Your task to perform on an android device: Open eBay Image 0: 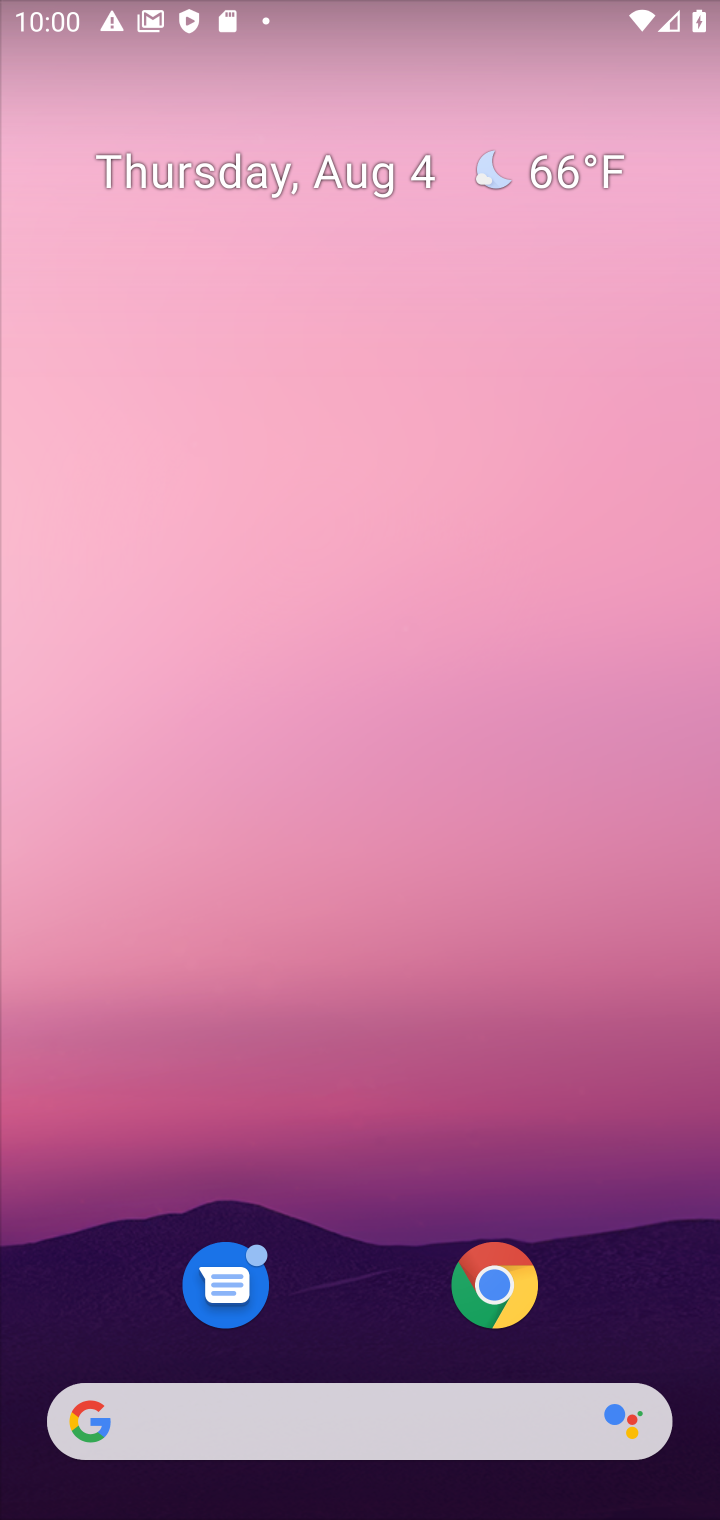
Step 0: press home button
Your task to perform on an android device: Open eBay Image 1: 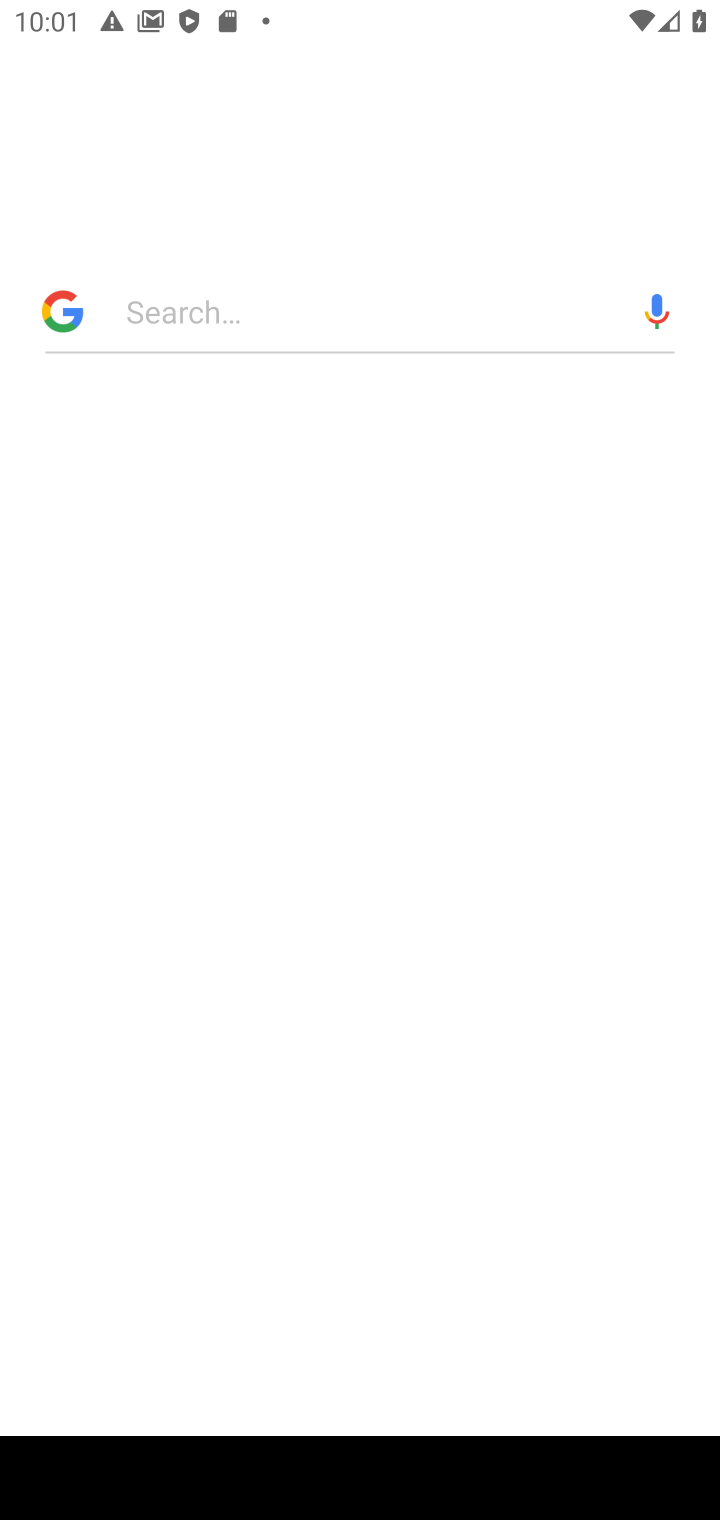
Step 1: click (467, 64)
Your task to perform on an android device: Open eBay Image 2: 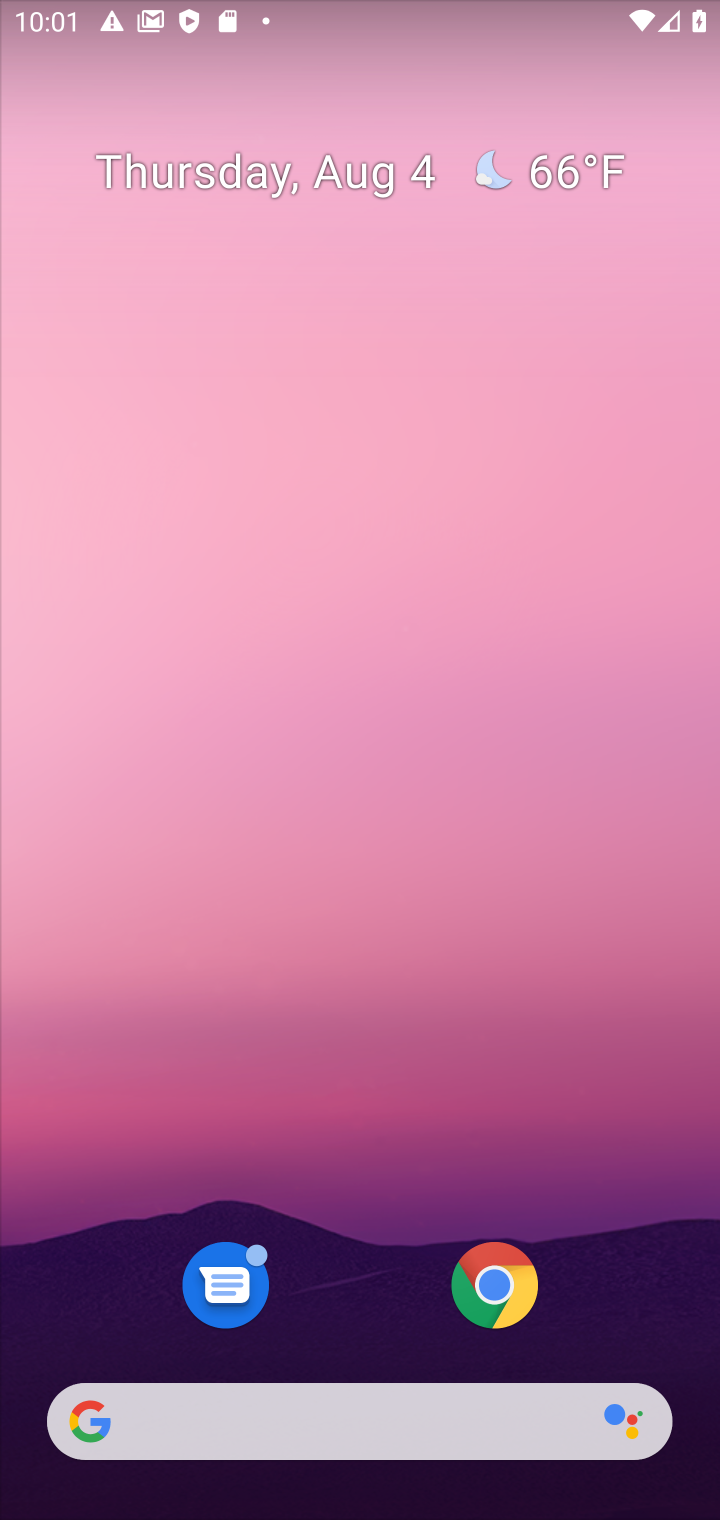
Step 2: drag from (382, 1295) to (454, 198)
Your task to perform on an android device: Open eBay Image 3: 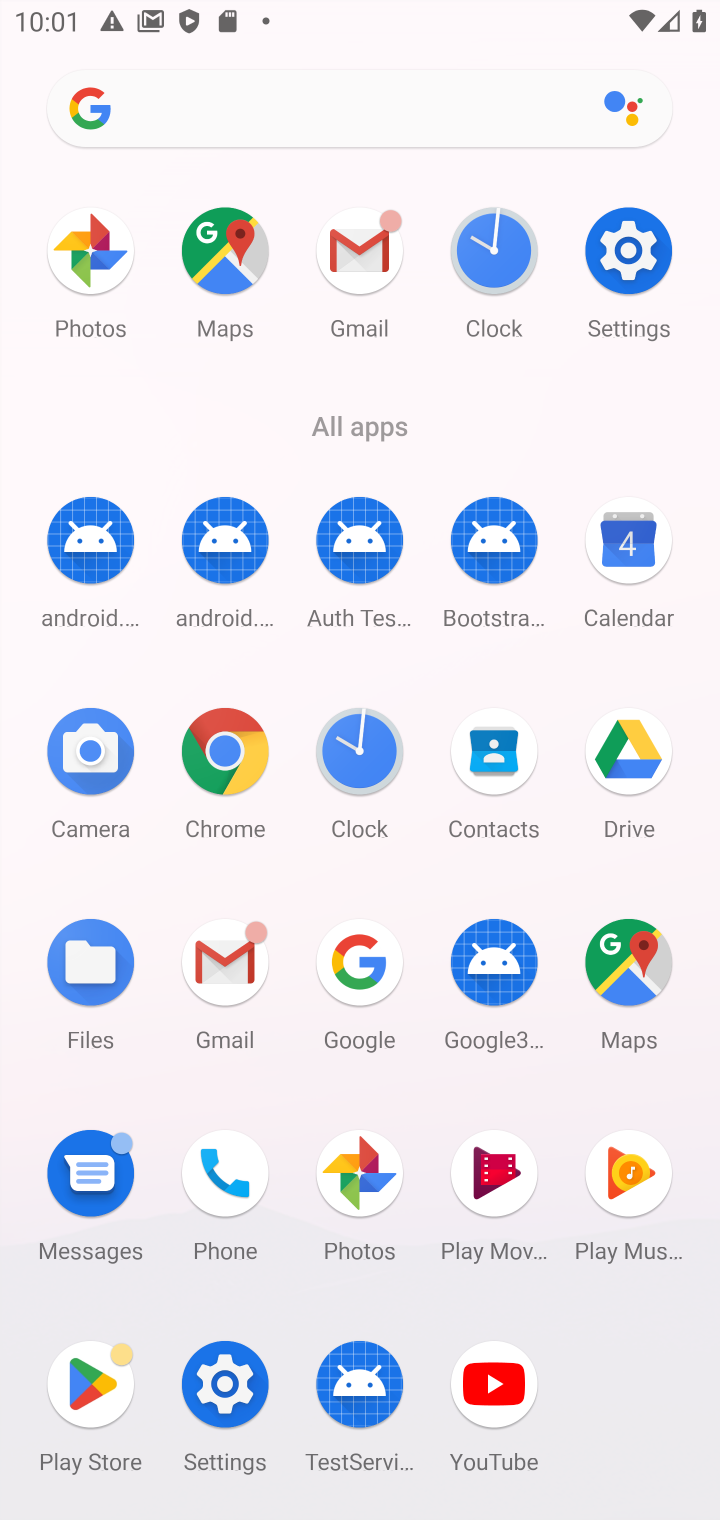
Step 3: click (223, 758)
Your task to perform on an android device: Open eBay Image 4: 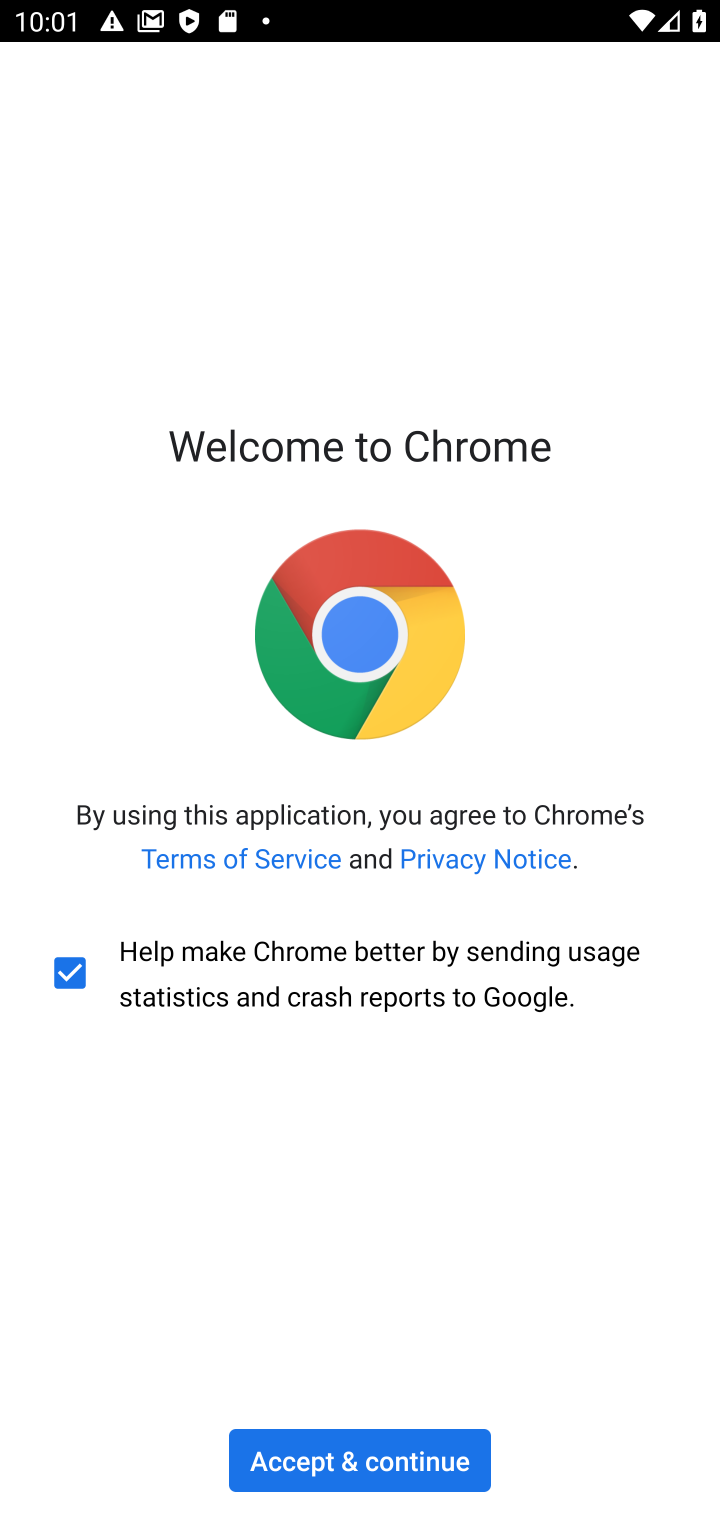
Step 4: click (408, 1448)
Your task to perform on an android device: Open eBay Image 5: 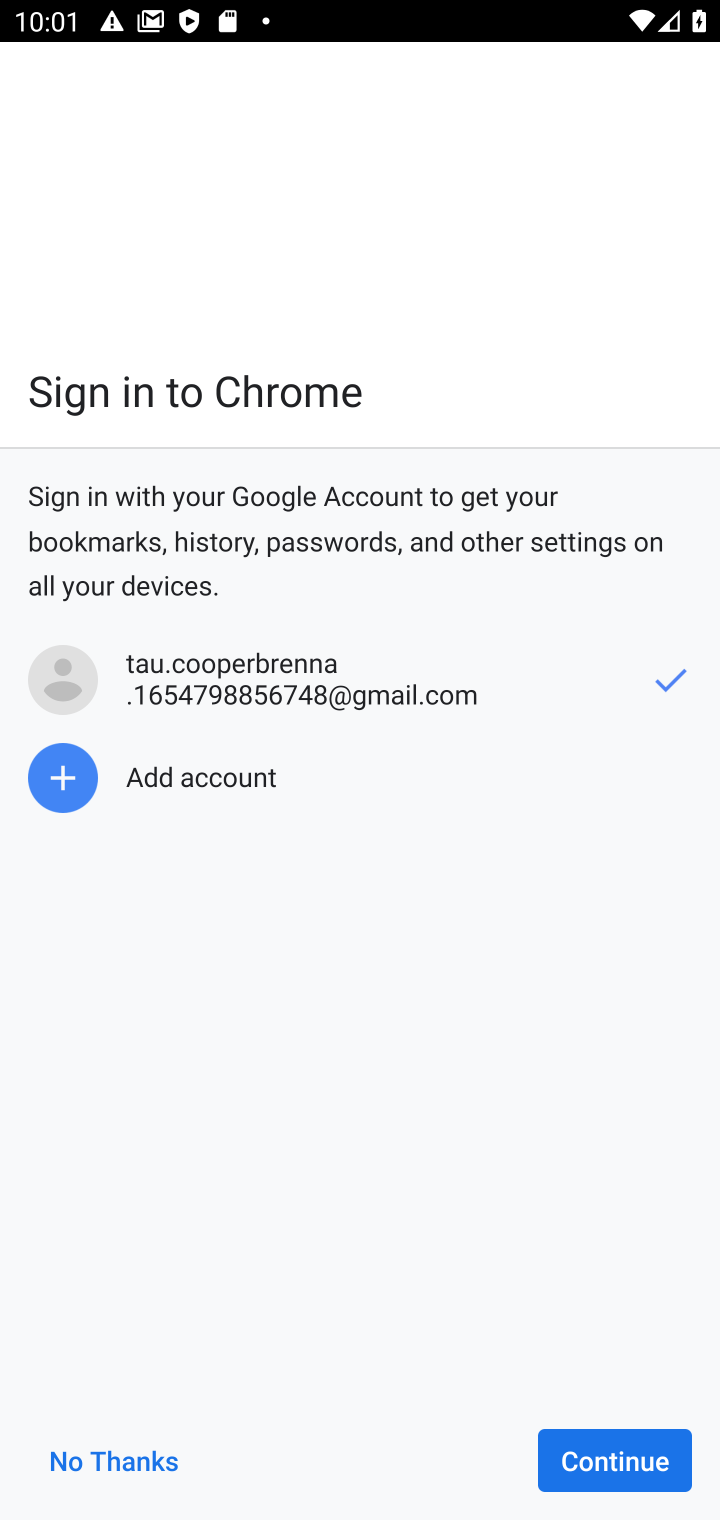
Step 5: click (626, 1449)
Your task to perform on an android device: Open eBay Image 6: 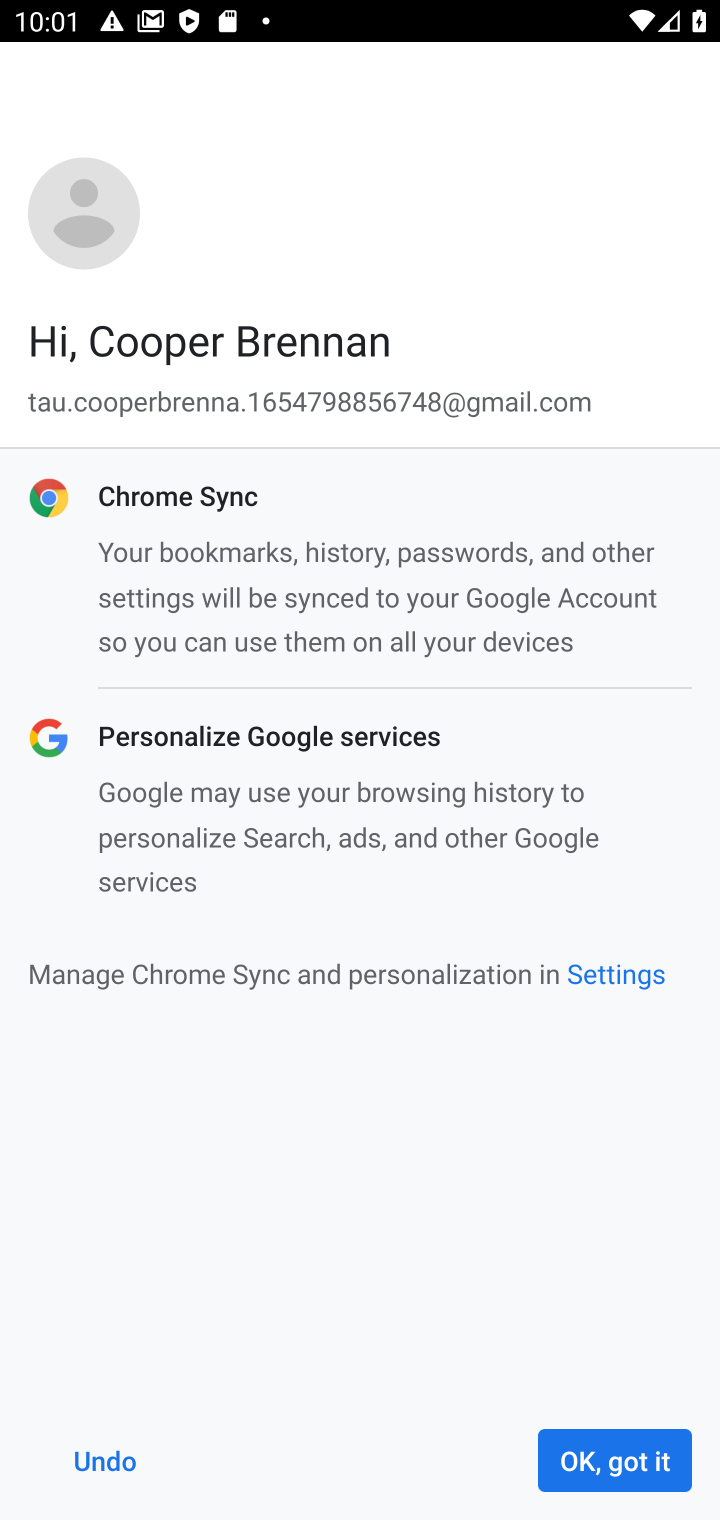
Step 6: click (626, 1449)
Your task to perform on an android device: Open eBay Image 7: 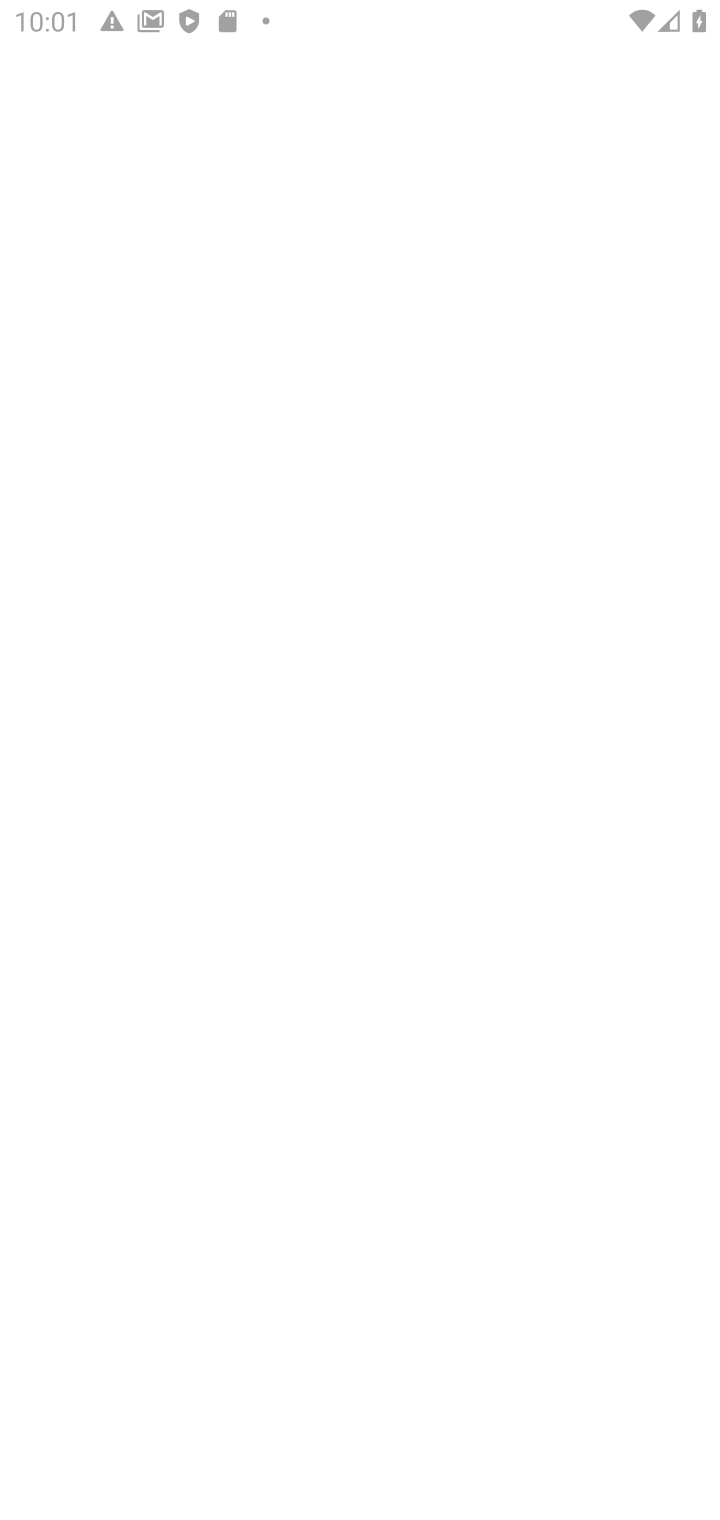
Step 7: click (626, 1449)
Your task to perform on an android device: Open eBay Image 8: 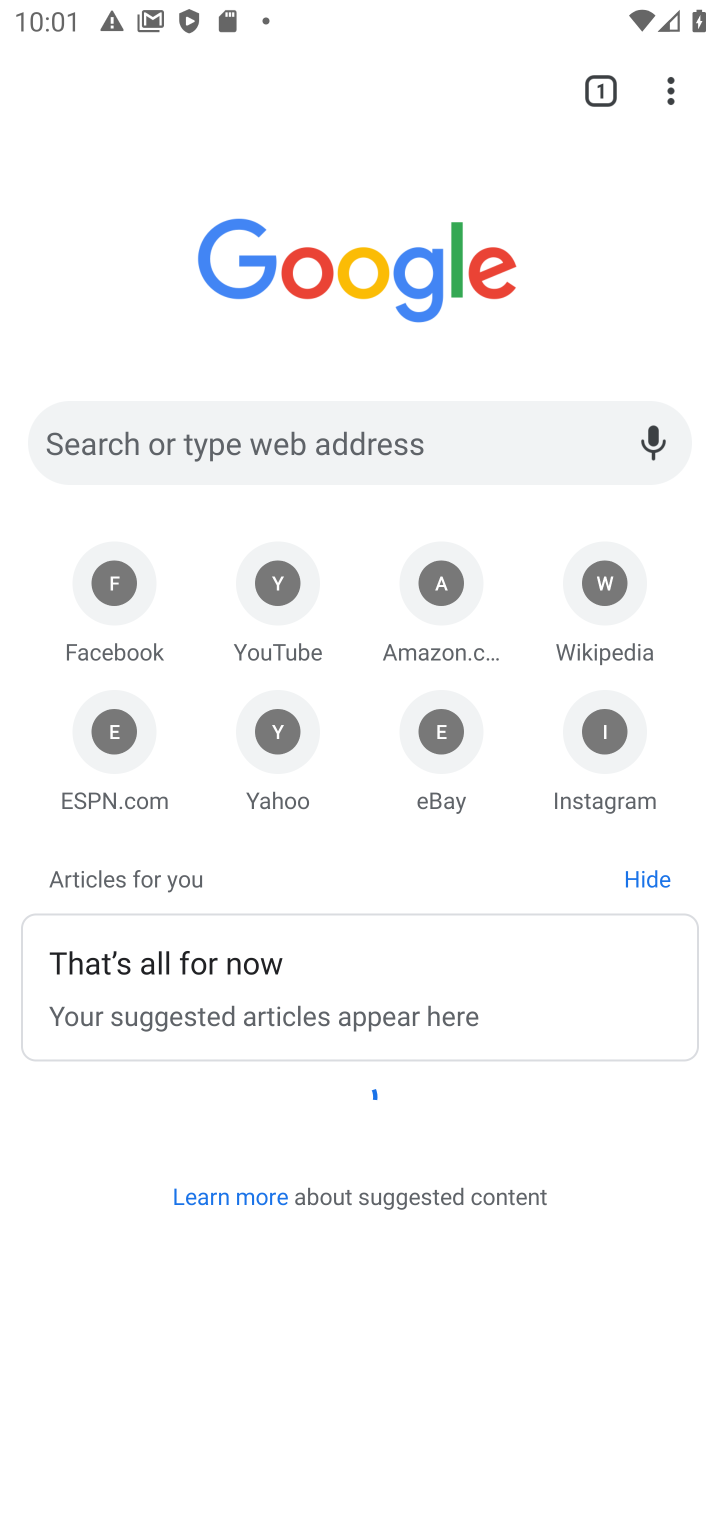
Step 8: click (347, 426)
Your task to perform on an android device: Open eBay Image 9: 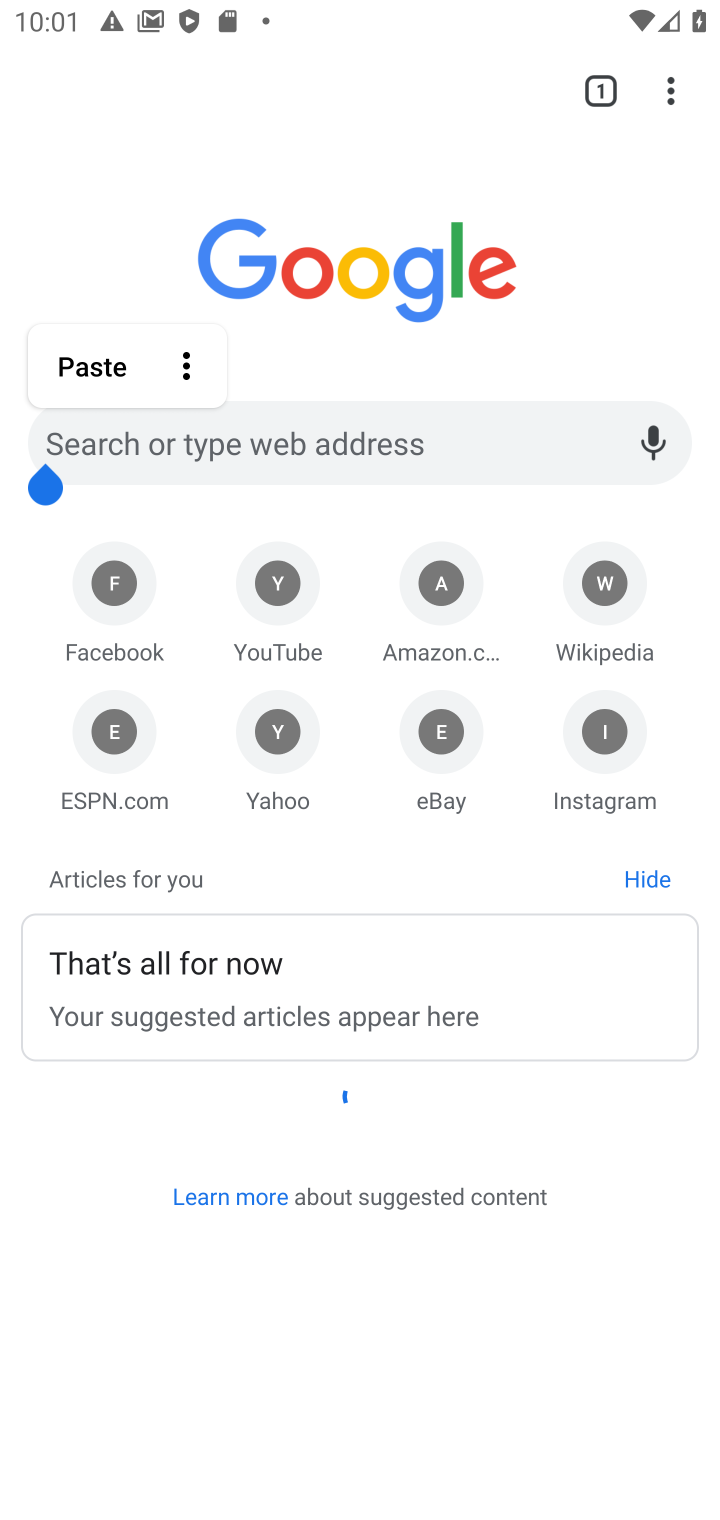
Step 9: click (347, 436)
Your task to perform on an android device: Open eBay Image 10: 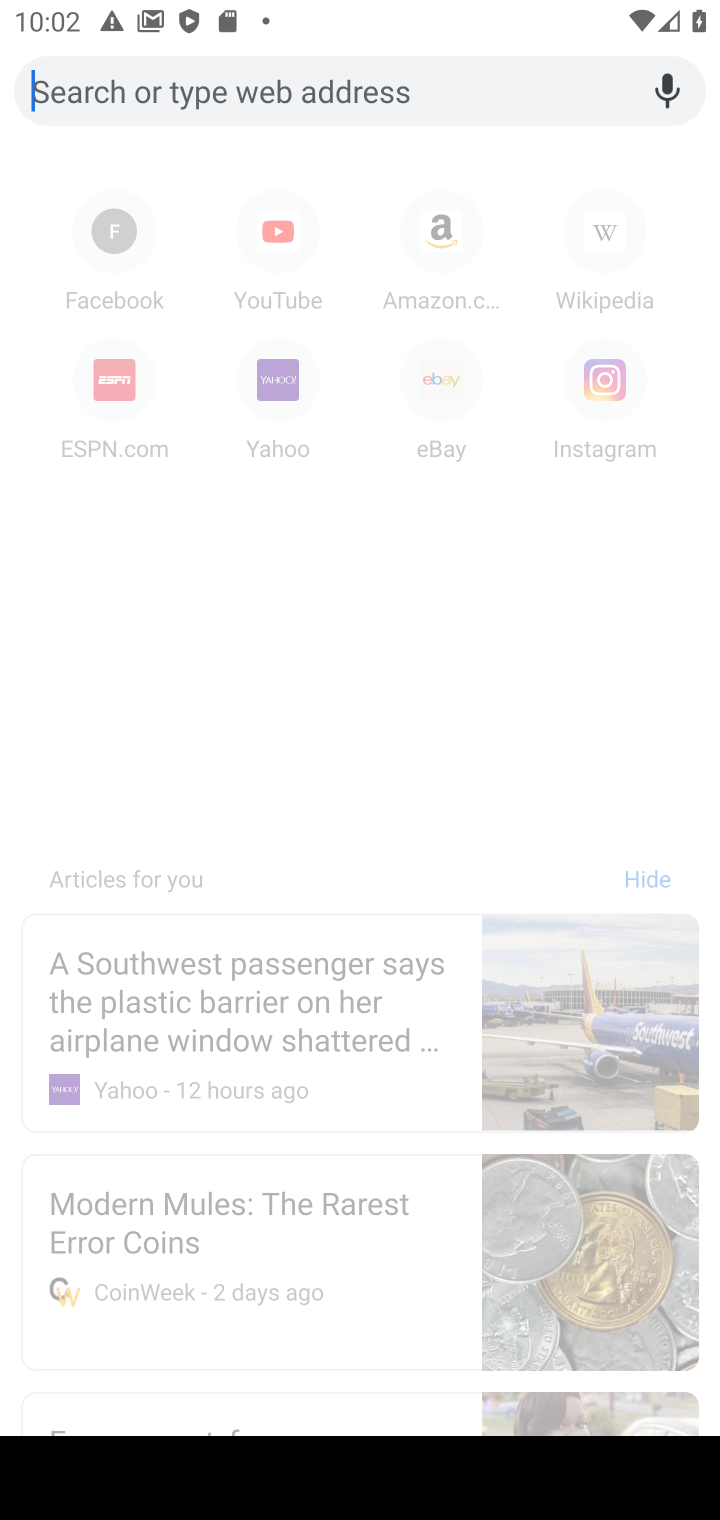
Step 10: type "eBay"
Your task to perform on an android device: Open eBay Image 11: 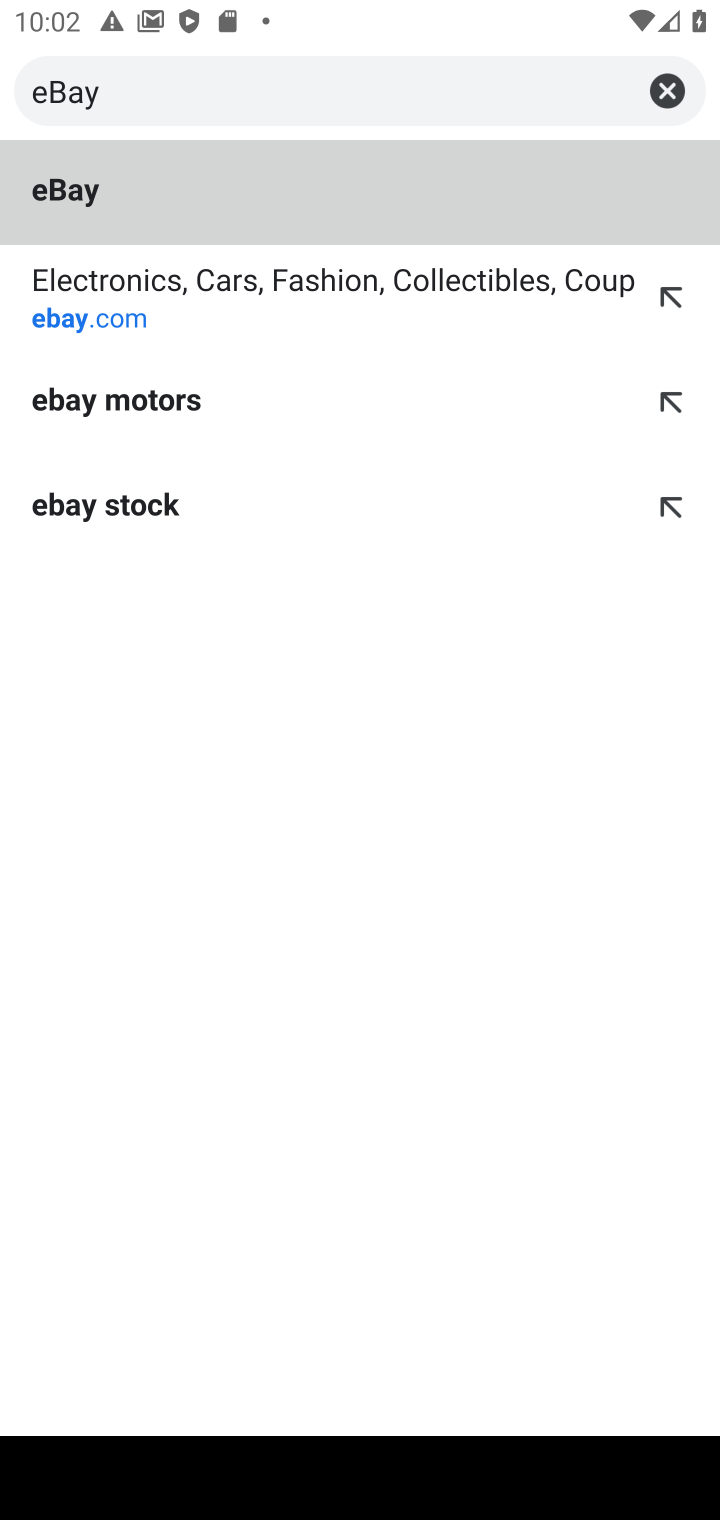
Step 11: click (113, 305)
Your task to perform on an android device: Open eBay Image 12: 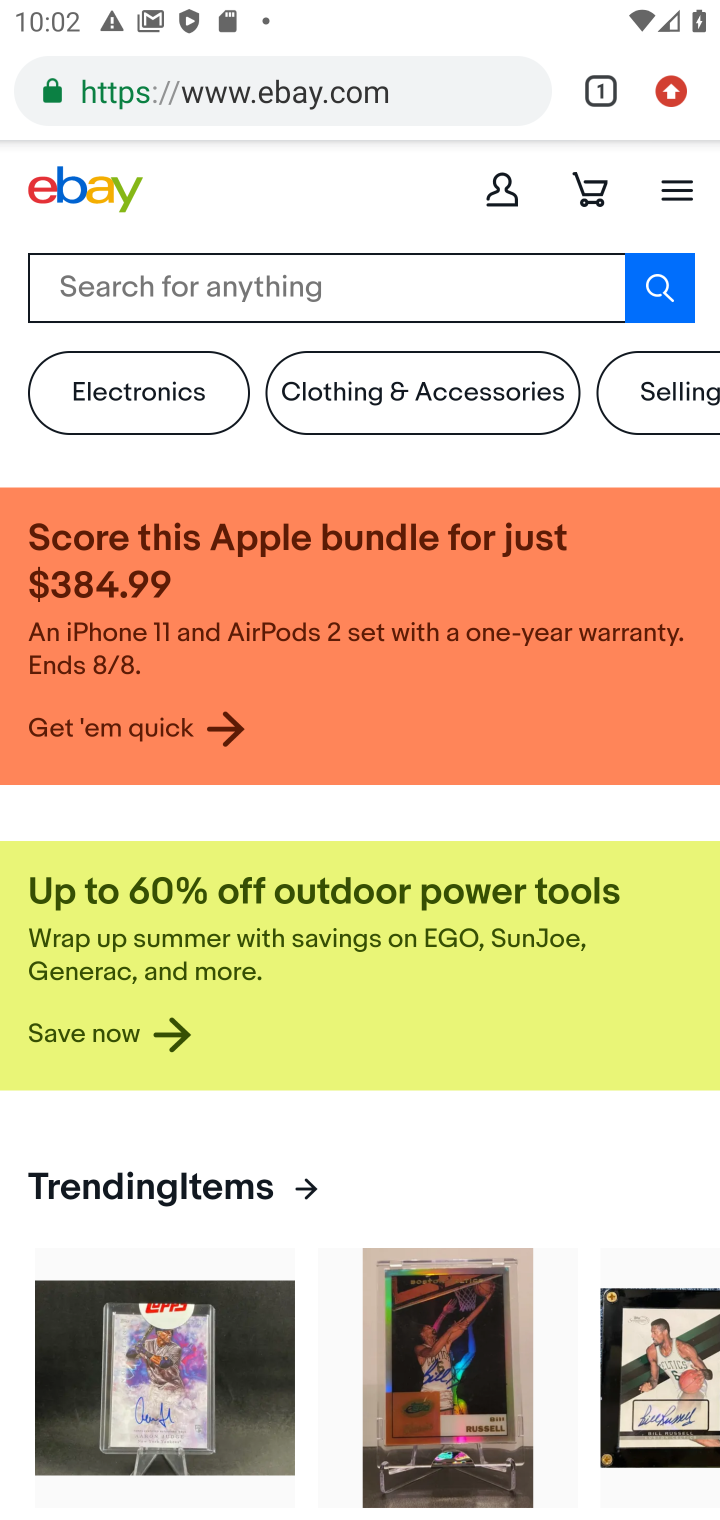
Step 12: task complete